Your task to perform on an android device: What's the weather? Image 0: 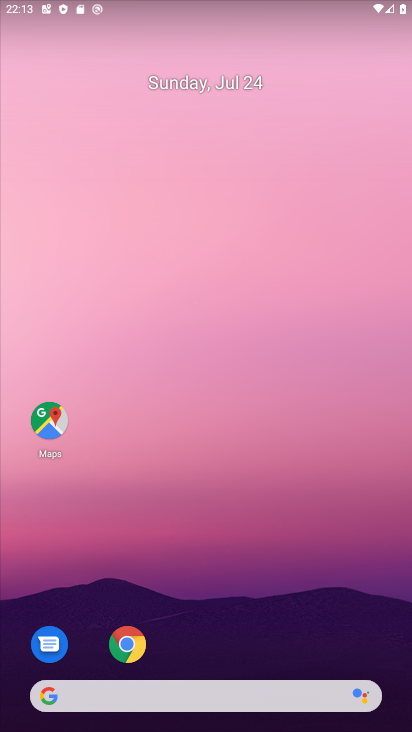
Step 0: click (93, 693)
Your task to perform on an android device: What's the weather? Image 1: 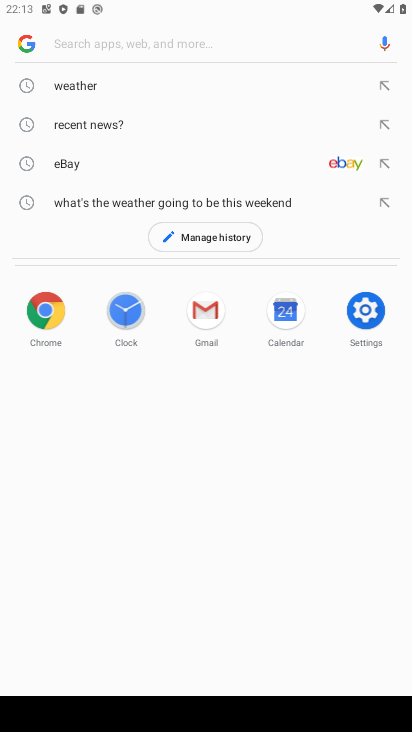
Step 1: click (75, 87)
Your task to perform on an android device: What's the weather? Image 2: 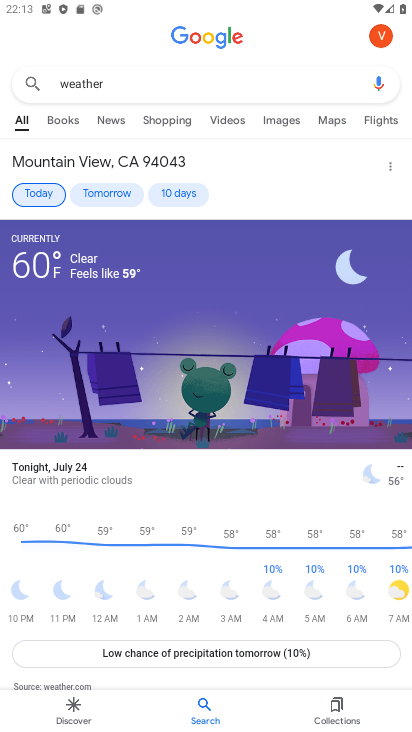
Step 2: task complete